Your task to perform on an android device: Open my contact list Image 0: 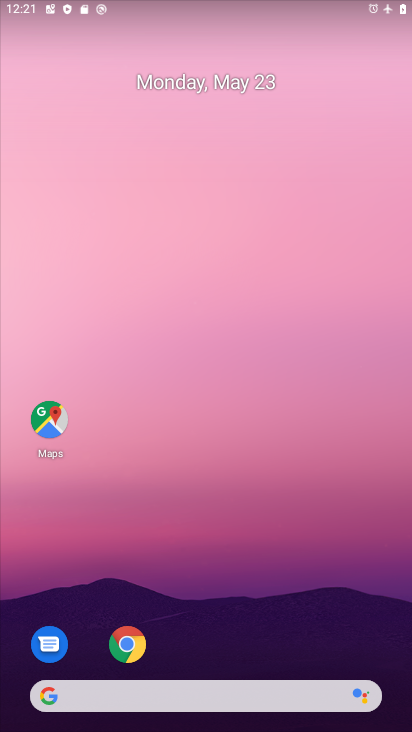
Step 0: drag from (319, 606) to (344, 45)
Your task to perform on an android device: Open my contact list Image 1: 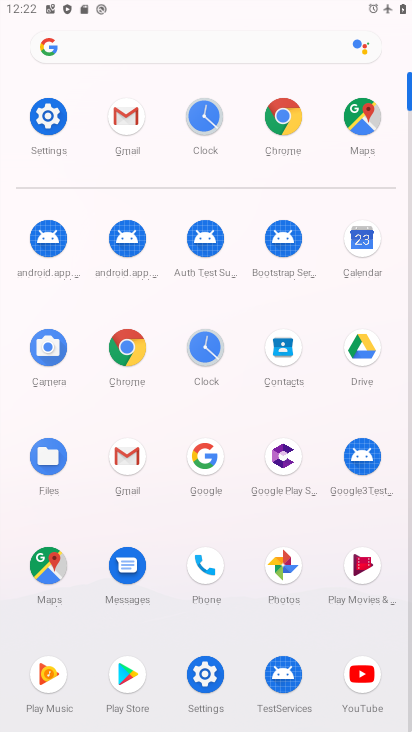
Step 1: click (283, 365)
Your task to perform on an android device: Open my contact list Image 2: 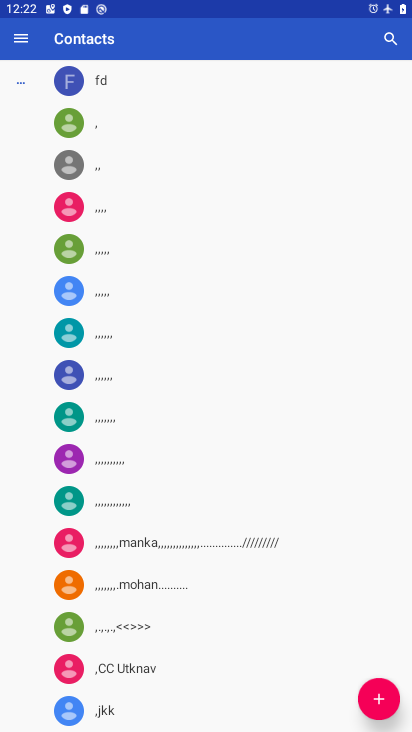
Step 2: task complete